Your task to perform on an android device: Open the calendar and show me this week's events? Image 0: 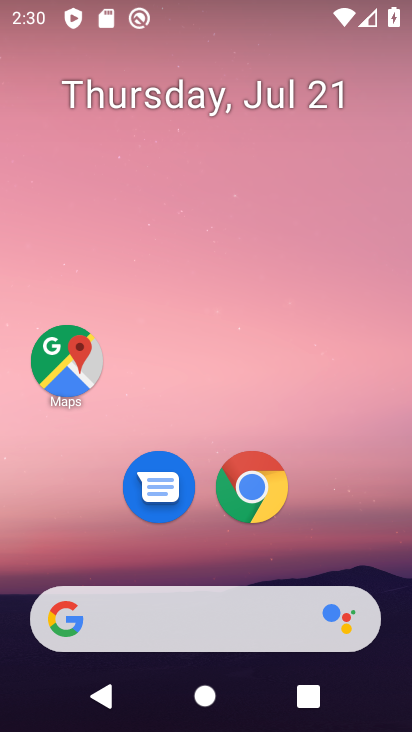
Step 0: drag from (272, 513) to (308, 13)
Your task to perform on an android device: Open the calendar and show me this week's events? Image 1: 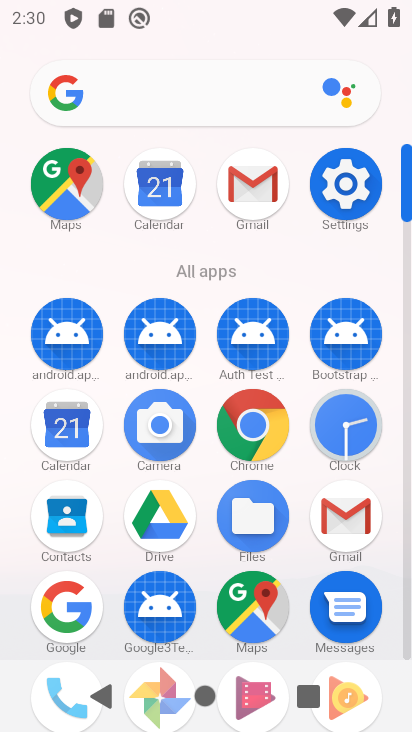
Step 1: click (57, 444)
Your task to perform on an android device: Open the calendar and show me this week's events? Image 2: 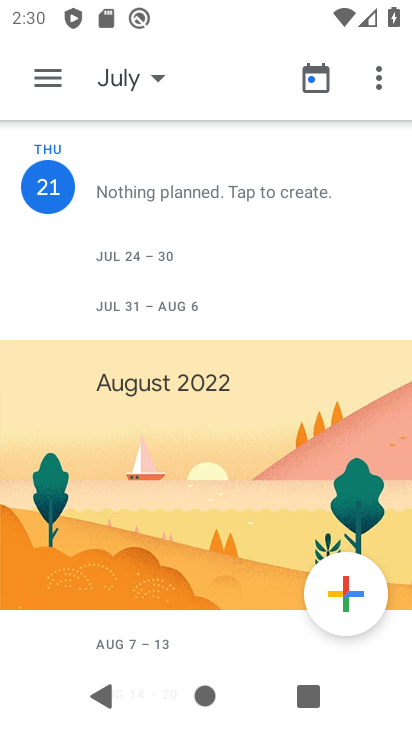
Step 2: click (130, 92)
Your task to perform on an android device: Open the calendar and show me this week's events? Image 3: 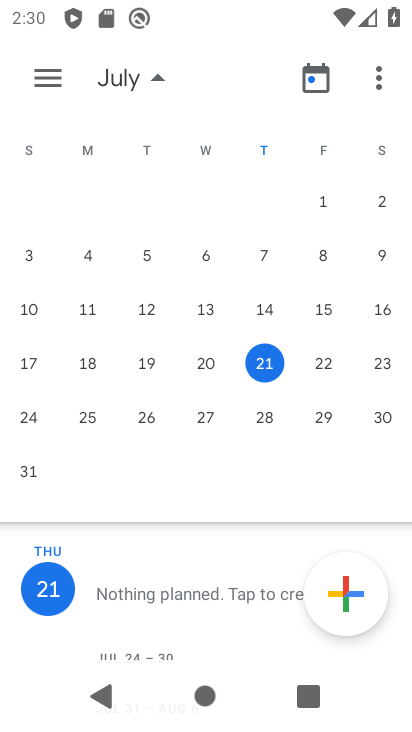
Step 3: click (267, 347)
Your task to perform on an android device: Open the calendar and show me this week's events? Image 4: 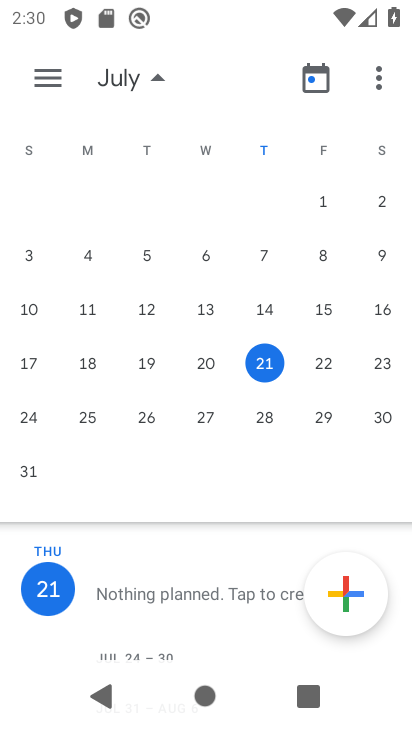
Step 4: task complete